Your task to perform on an android device: clear history in the chrome app Image 0: 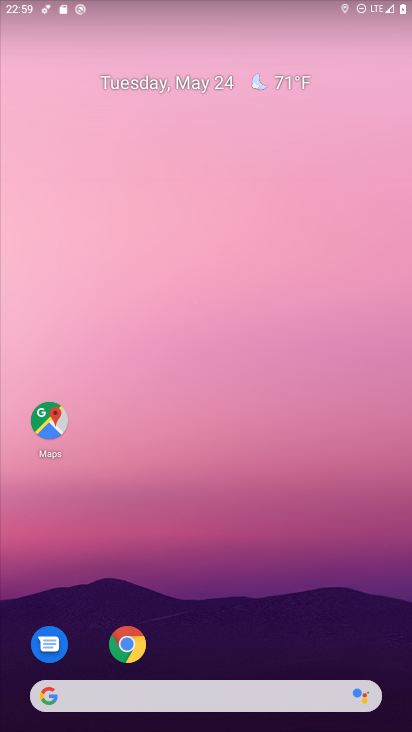
Step 0: click (121, 643)
Your task to perform on an android device: clear history in the chrome app Image 1: 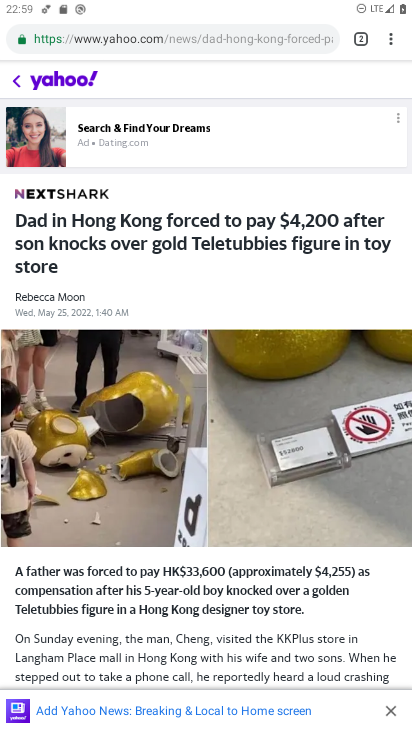
Step 1: click (391, 29)
Your task to perform on an android device: clear history in the chrome app Image 2: 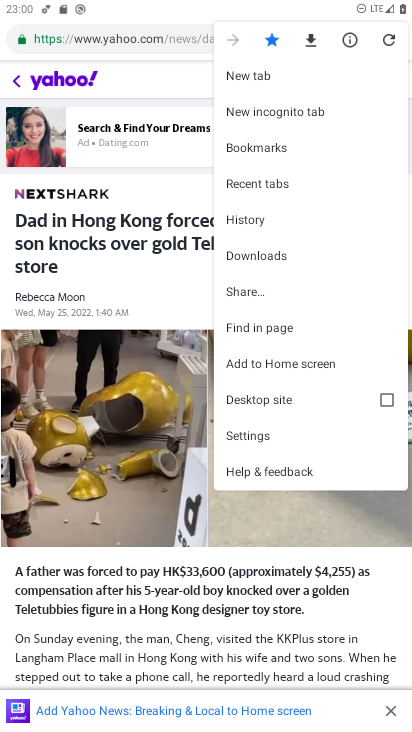
Step 2: click (245, 213)
Your task to perform on an android device: clear history in the chrome app Image 3: 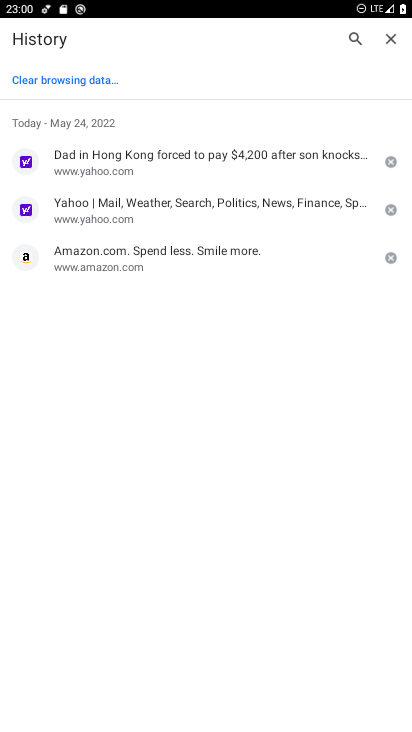
Step 3: click (68, 73)
Your task to perform on an android device: clear history in the chrome app Image 4: 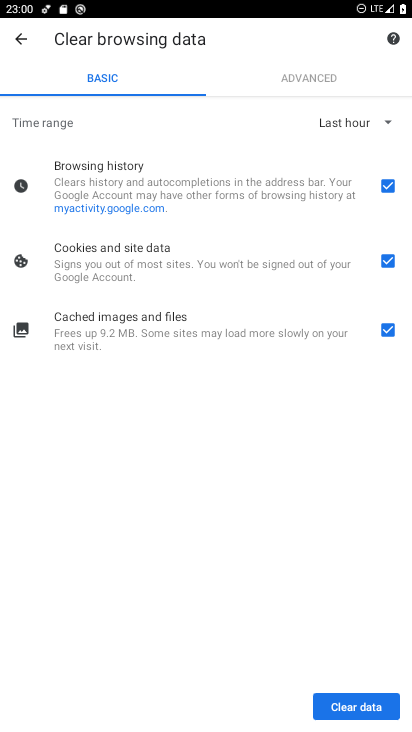
Step 4: click (354, 707)
Your task to perform on an android device: clear history in the chrome app Image 5: 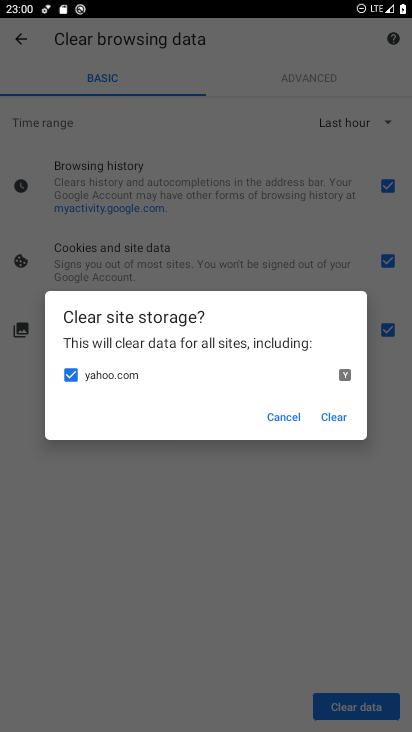
Step 5: click (331, 417)
Your task to perform on an android device: clear history in the chrome app Image 6: 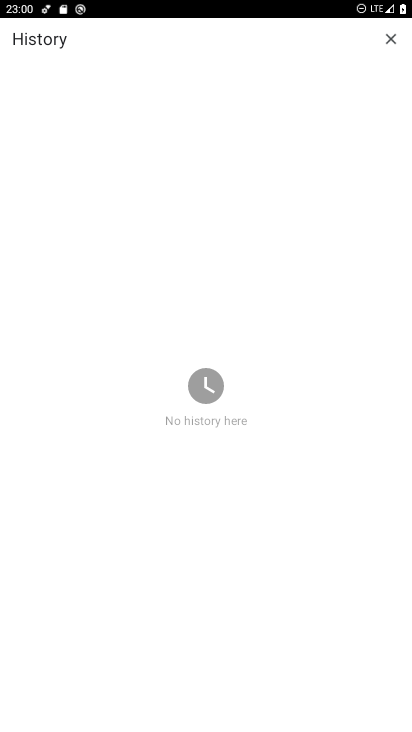
Step 6: task complete